Your task to perform on an android device: Show me recent news Image 0: 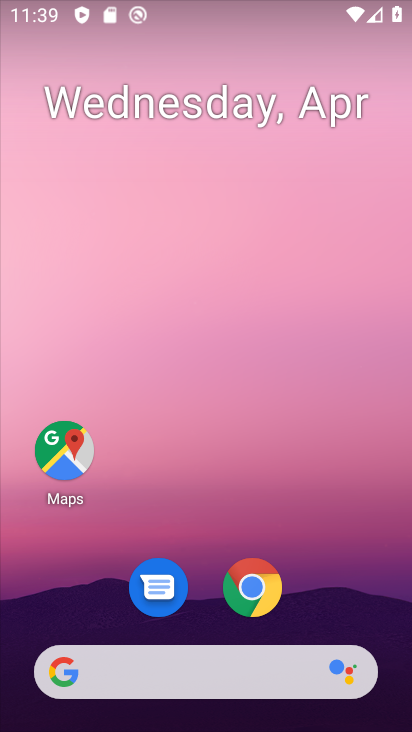
Step 0: drag from (202, 492) to (190, 599)
Your task to perform on an android device: Show me recent news Image 1: 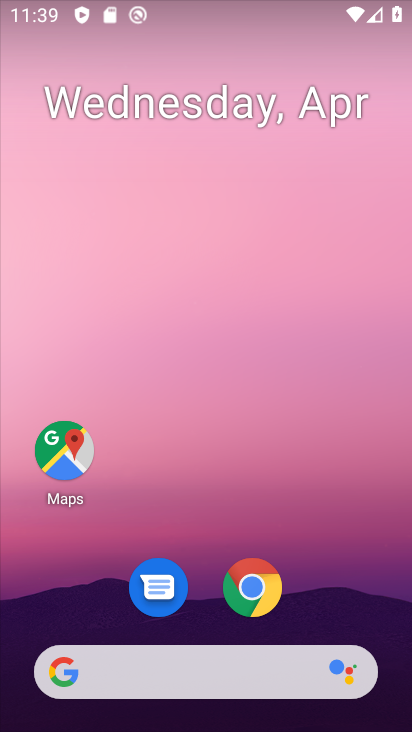
Step 1: click (198, 659)
Your task to perform on an android device: Show me recent news Image 2: 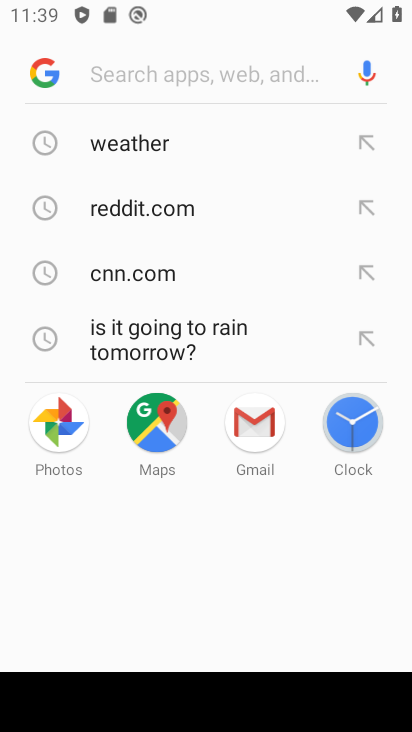
Step 2: type "recent news"
Your task to perform on an android device: Show me recent news Image 3: 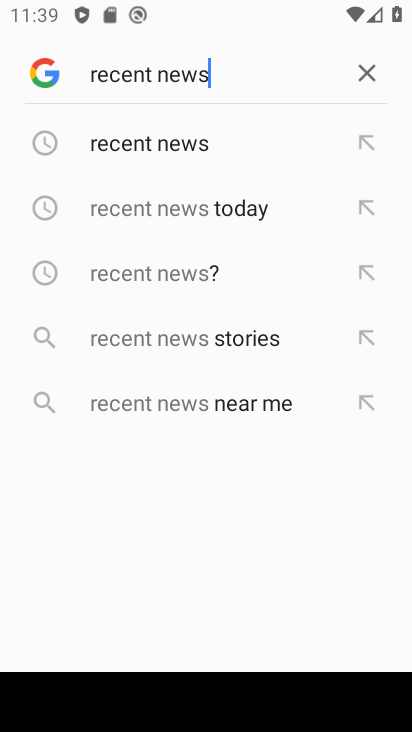
Step 3: click (190, 132)
Your task to perform on an android device: Show me recent news Image 4: 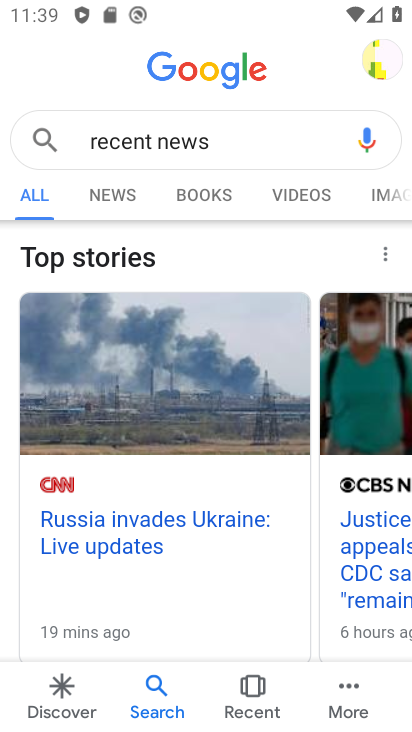
Step 4: task complete